Your task to perform on an android device: Open internet settings Image 0: 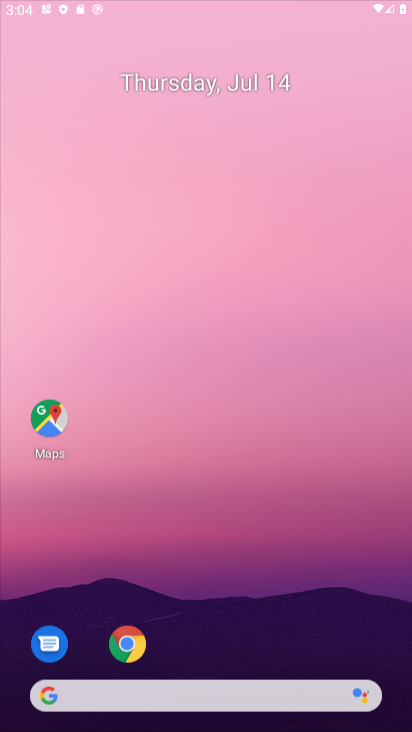
Step 0: click (272, 305)
Your task to perform on an android device: Open internet settings Image 1: 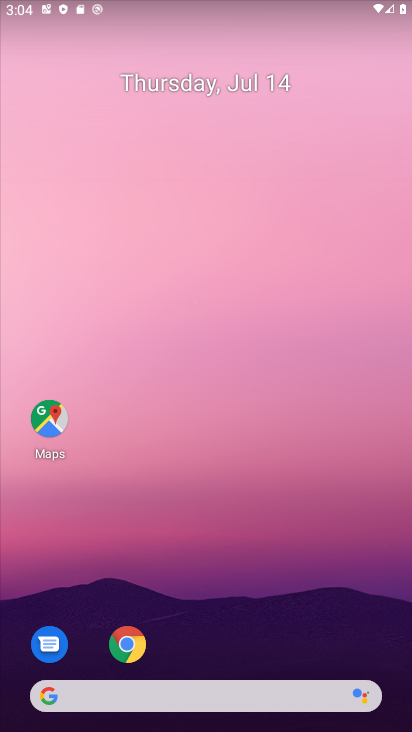
Step 1: drag from (209, 629) to (289, 91)
Your task to perform on an android device: Open internet settings Image 2: 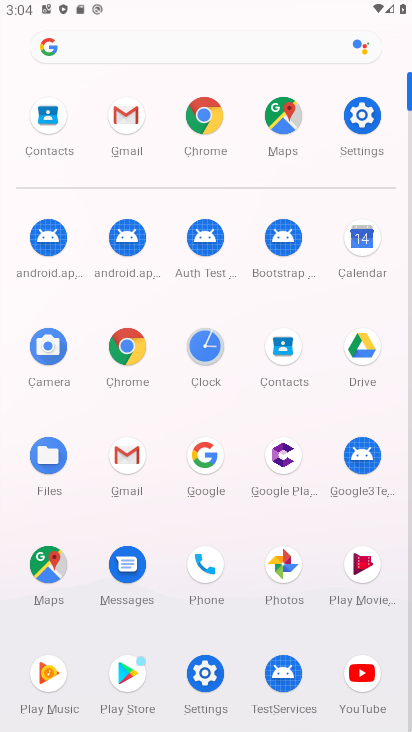
Step 2: click (202, 682)
Your task to perform on an android device: Open internet settings Image 3: 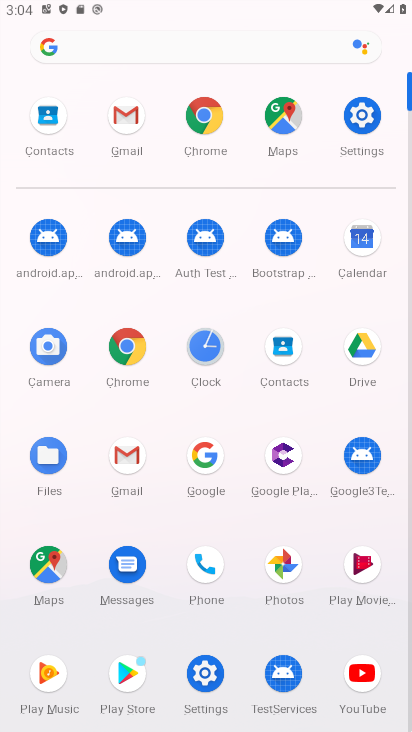
Step 3: click (202, 681)
Your task to perform on an android device: Open internet settings Image 4: 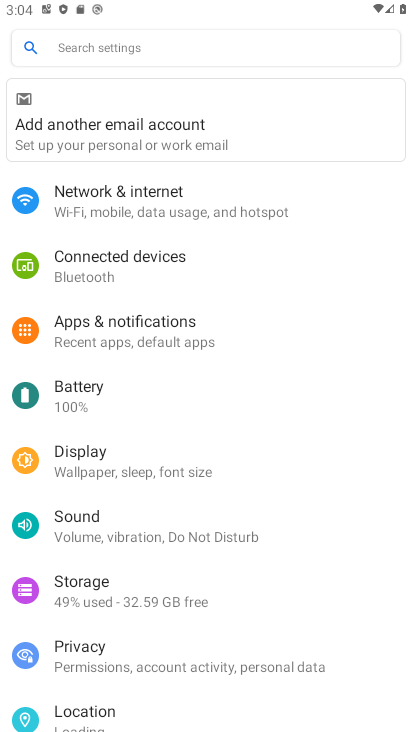
Step 4: click (177, 203)
Your task to perform on an android device: Open internet settings Image 5: 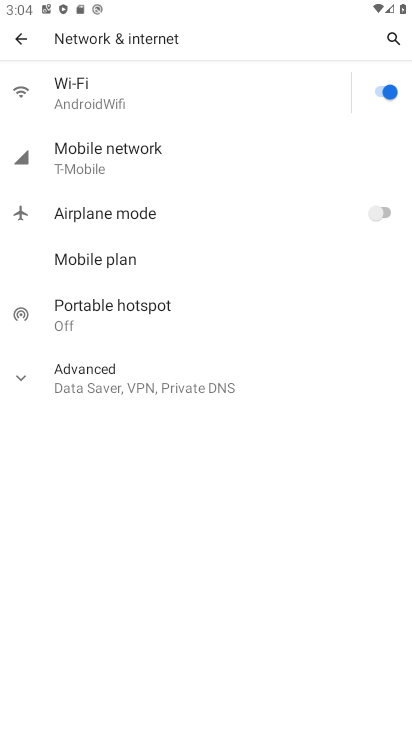
Step 5: drag from (240, 609) to (254, 235)
Your task to perform on an android device: Open internet settings Image 6: 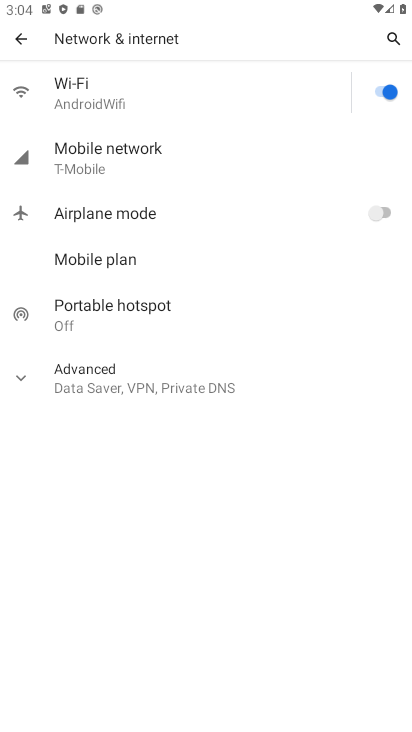
Step 6: click (148, 147)
Your task to perform on an android device: Open internet settings Image 7: 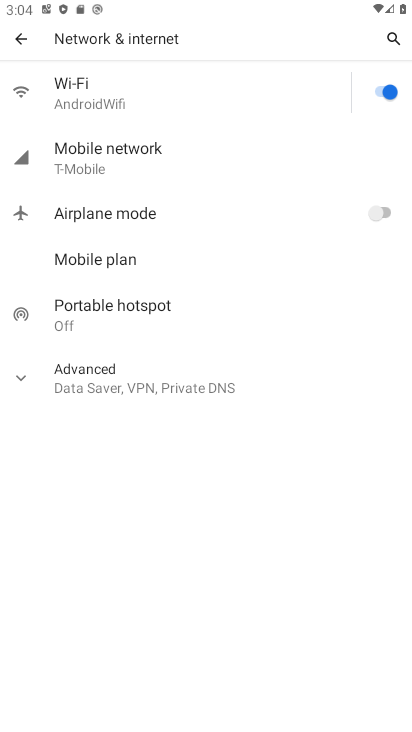
Step 7: task complete